Your task to perform on an android device: check storage Image 0: 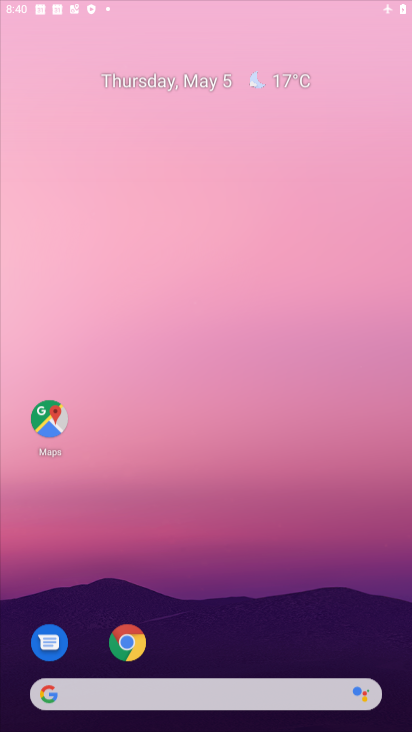
Step 0: click (225, 233)
Your task to perform on an android device: check storage Image 1: 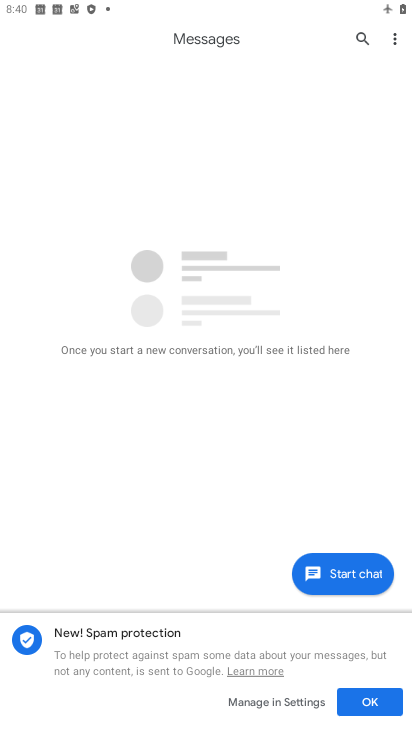
Step 1: drag from (236, 530) to (150, 66)
Your task to perform on an android device: check storage Image 2: 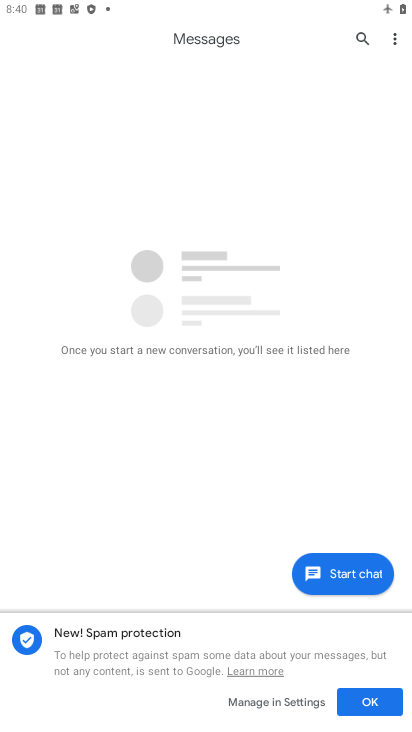
Step 2: press home button
Your task to perform on an android device: check storage Image 3: 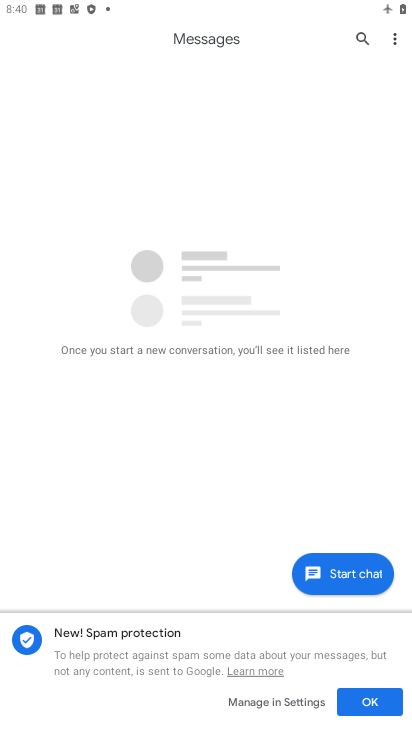
Step 3: press home button
Your task to perform on an android device: check storage Image 4: 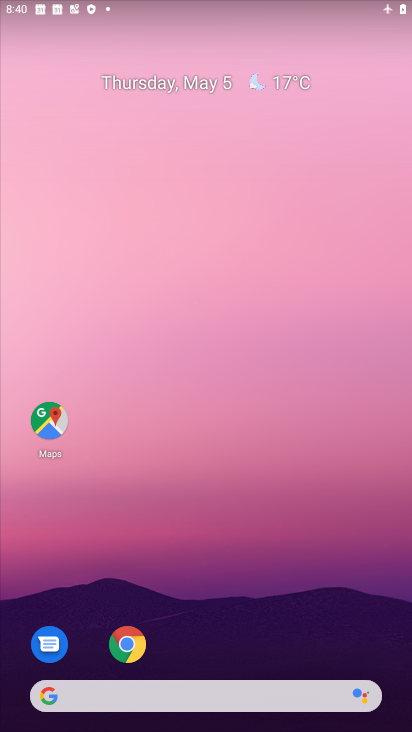
Step 4: drag from (199, 564) to (224, 224)
Your task to perform on an android device: check storage Image 5: 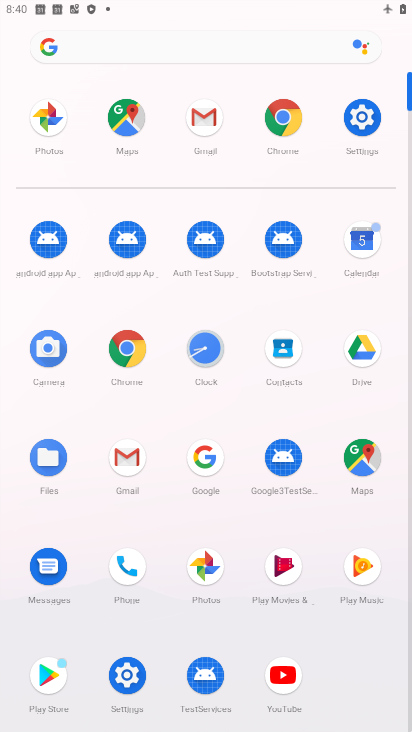
Step 5: click (355, 126)
Your task to perform on an android device: check storage Image 6: 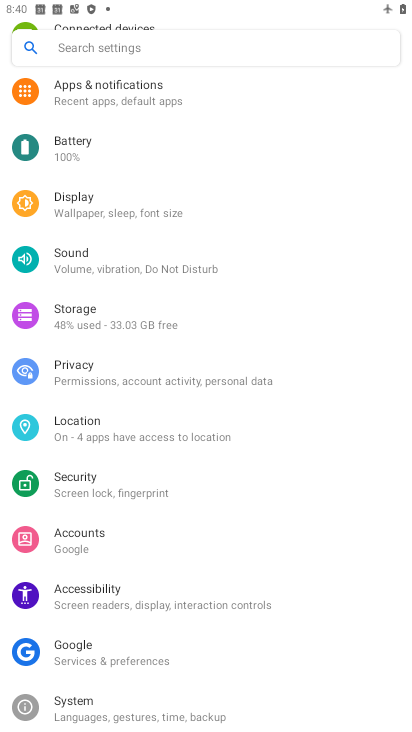
Step 6: drag from (203, 174) to (225, 661)
Your task to perform on an android device: check storage Image 7: 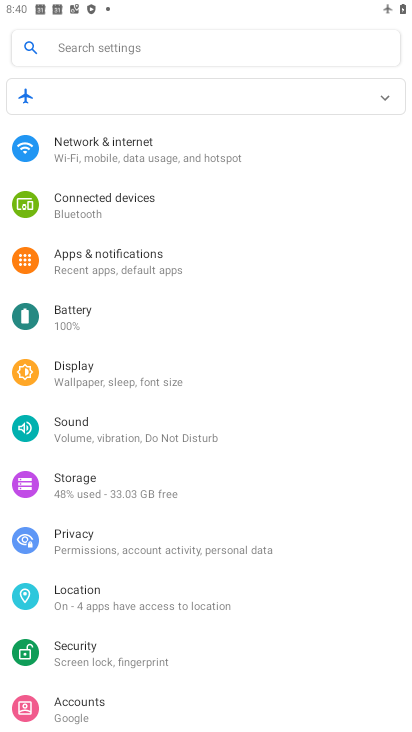
Step 7: click (126, 483)
Your task to perform on an android device: check storage Image 8: 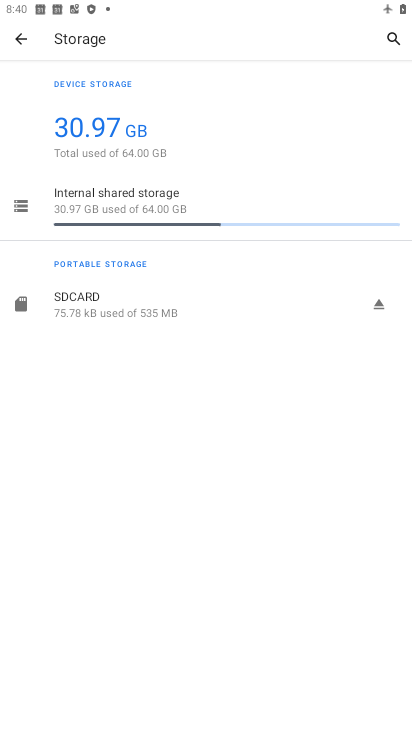
Step 8: drag from (188, 439) to (215, 130)
Your task to perform on an android device: check storage Image 9: 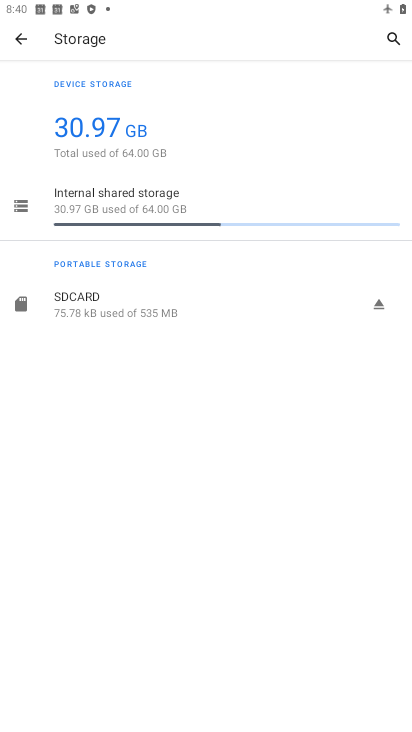
Step 9: click (140, 104)
Your task to perform on an android device: check storage Image 10: 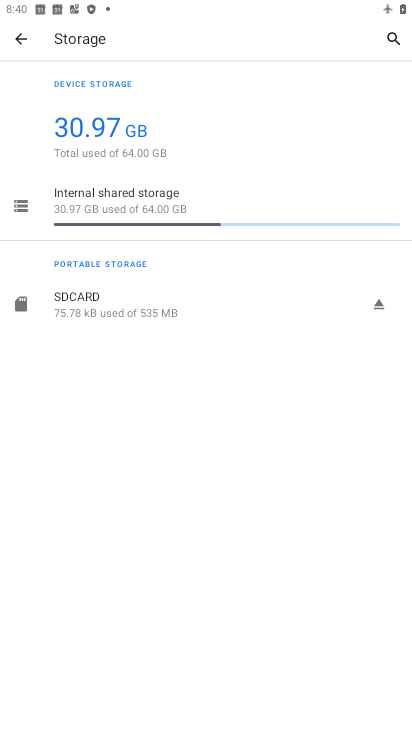
Step 10: click (160, 118)
Your task to perform on an android device: check storage Image 11: 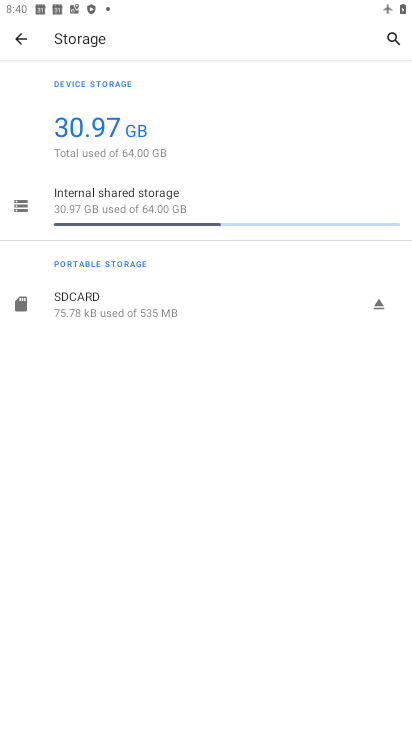
Step 11: drag from (161, 120) to (172, 152)
Your task to perform on an android device: check storage Image 12: 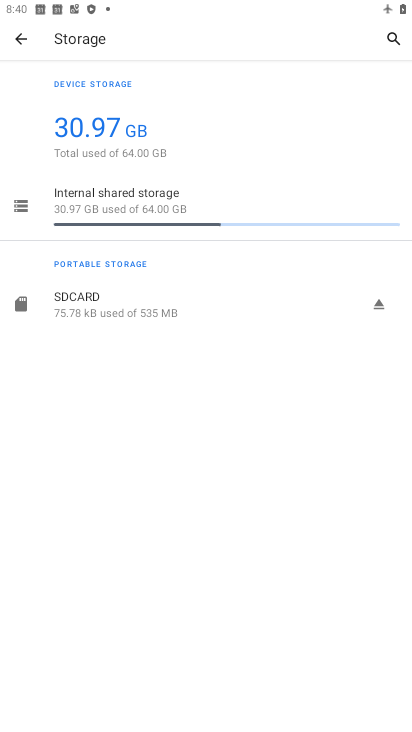
Step 12: click (172, 160)
Your task to perform on an android device: check storage Image 13: 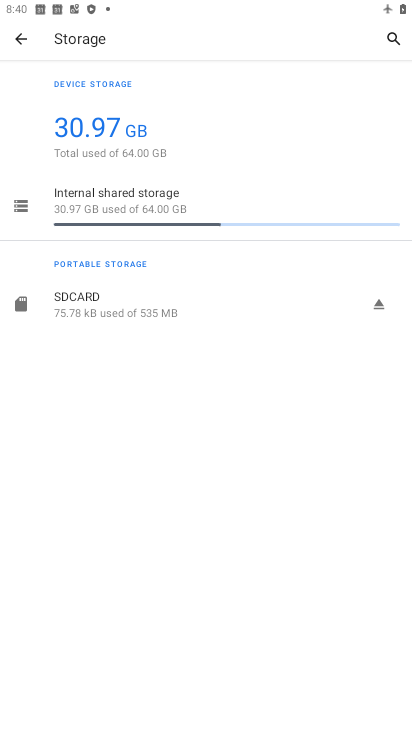
Step 13: click (155, 124)
Your task to perform on an android device: check storage Image 14: 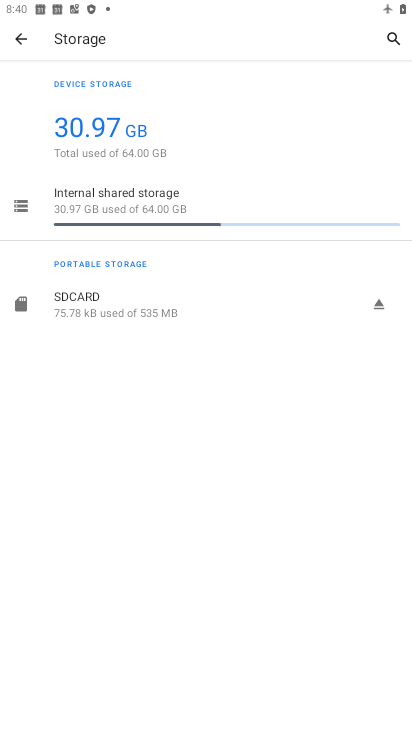
Step 14: click (155, 124)
Your task to perform on an android device: check storage Image 15: 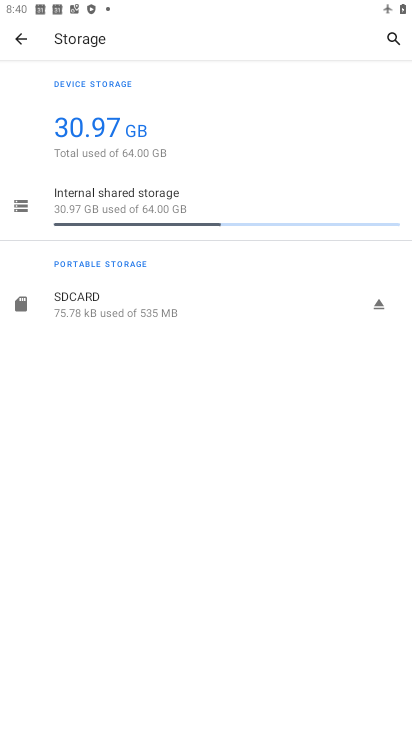
Step 15: click (145, 124)
Your task to perform on an android device: check storage Image 16: 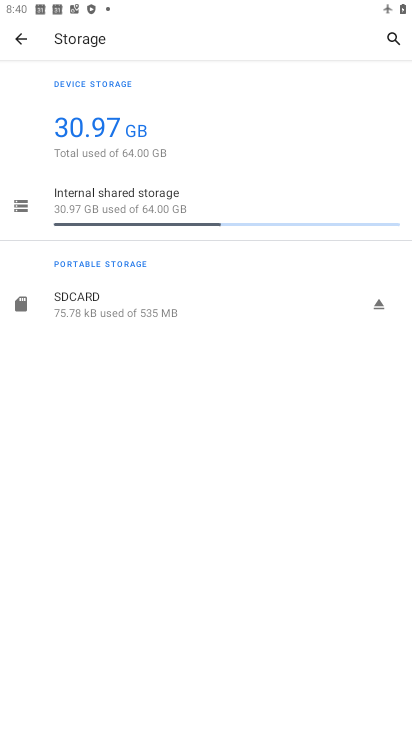
Step 16: click (150, 125)
Your task to perform on an android device: check storage Image 17: 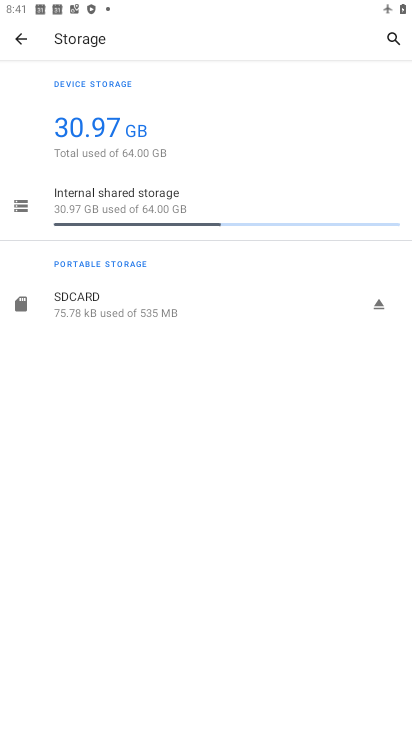
Step 17: click (120, 125)
Your task to perform on an android device: check storage Image 18: 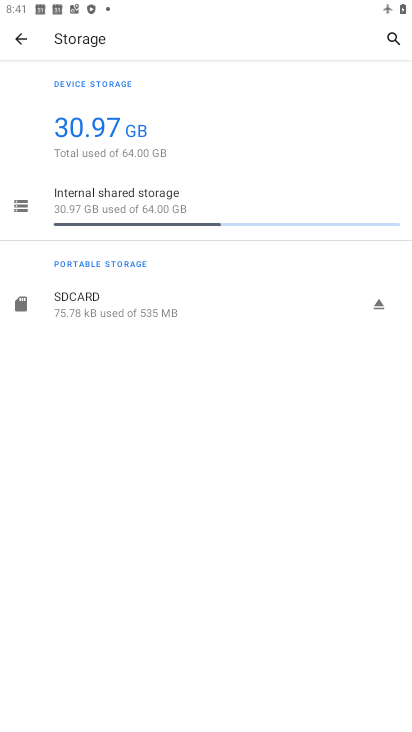
Step 18: click (121, 125)
Your task to perform on an android device: check storage Image 19: 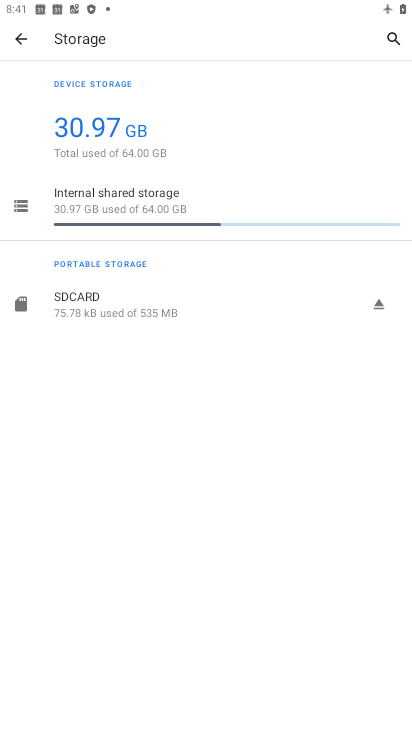
Step 19: click (128, 126)
Your task to perform on an android device: check storage Image 20: 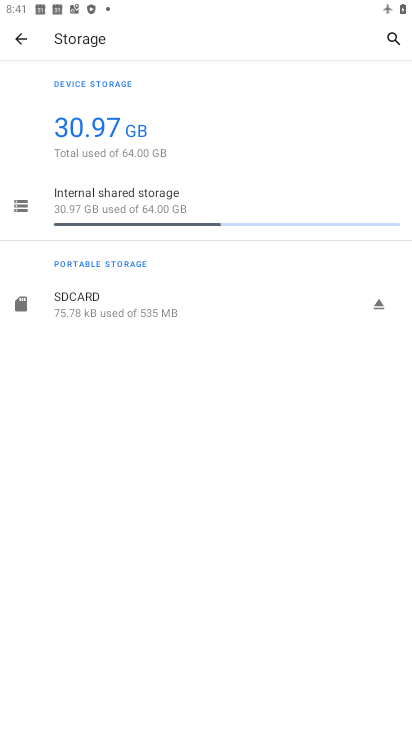
Step 20: click (128, 126)
Your task to perform on an android device: check storage Image 21: 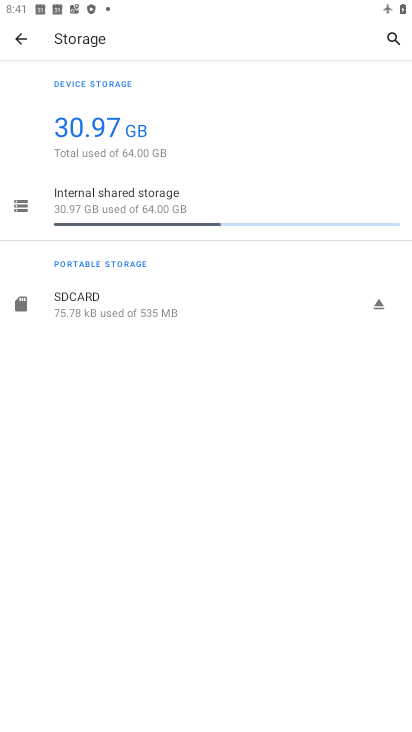
Step 21: click (131, 86)
Your task to perform on an android device: check storage Image 22: 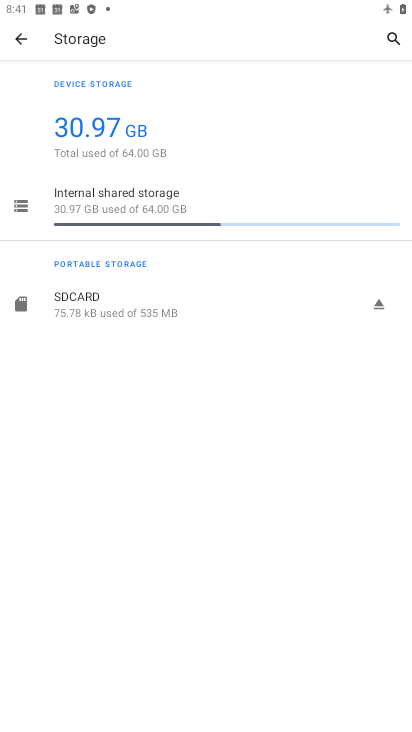
Step 22: click (131, 86)
Your task to perform on an android device: check storage Image 23: 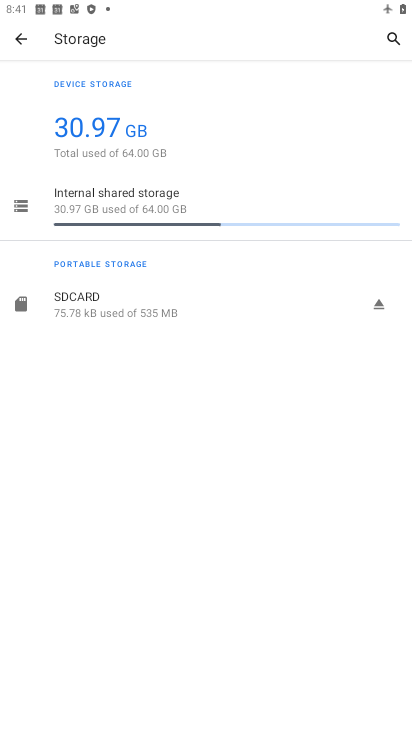
Step 23: task complete